Your task to perform on an android device: Open location settings Image 0: 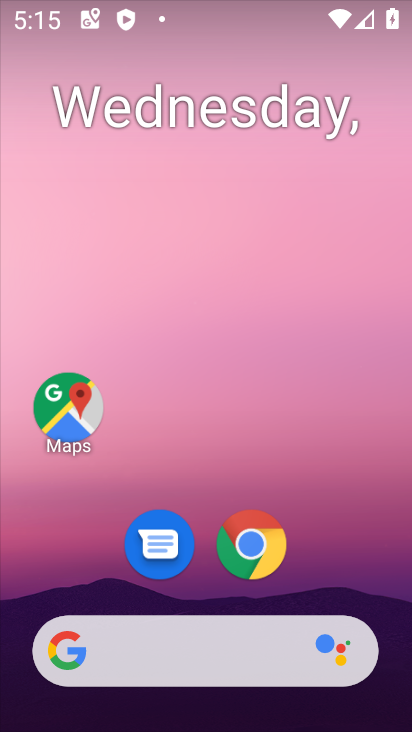
Step 0: drag from (389, 690) to (368, 262)
Your task to perform on an android device: Open location settings Image 1: 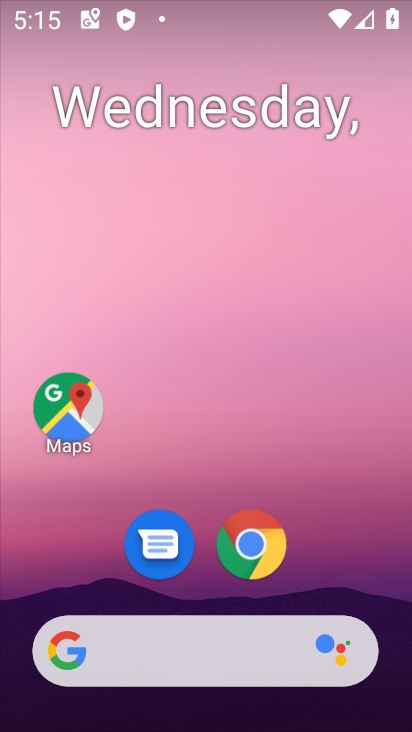
Step 1: drag from (392, 596) to (376, 113)
Your task to perform on an android device: Open location settings Image 2: 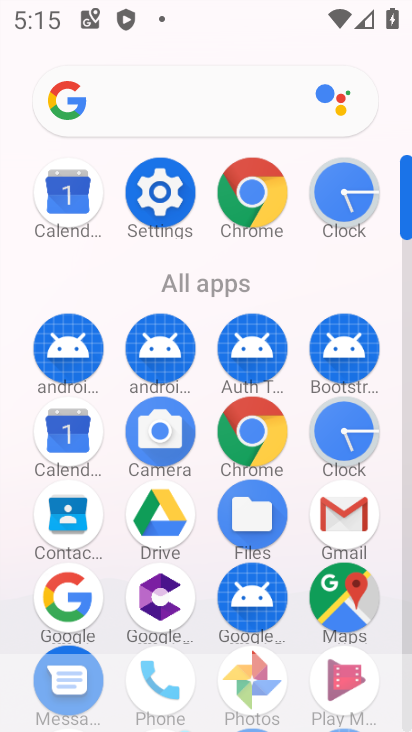
Step 2: click (161, 187)
Your task to perform on an android device: Open location settings Image 3: 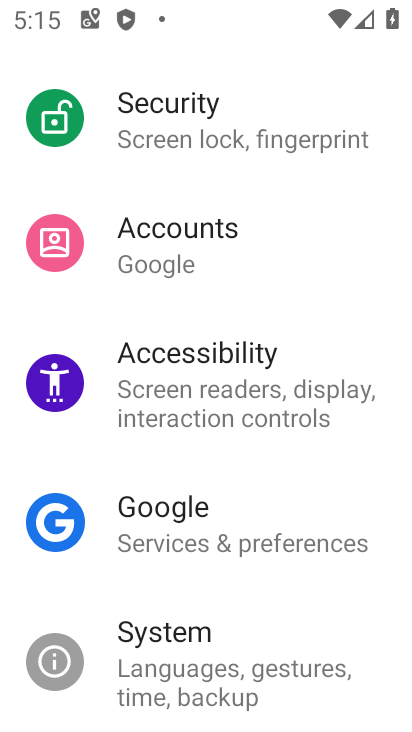
Step 3: drag from (243, 158) to (270, 515)
Your task to perform on an android device: Open location settings Image 4: 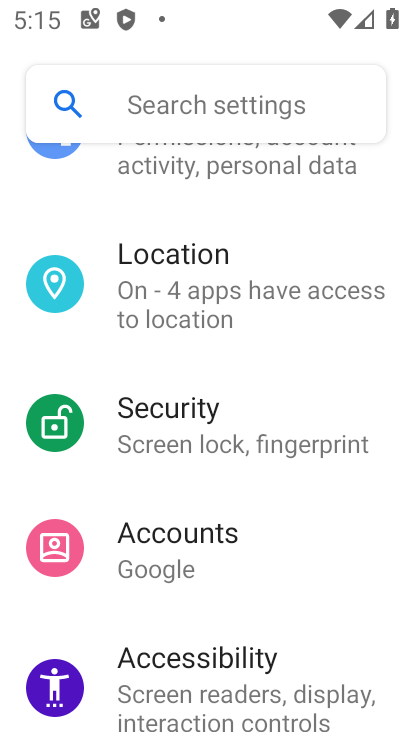
Step 4: click (176, 287)
Your task to perform on an android device: Open location settings Image 5: 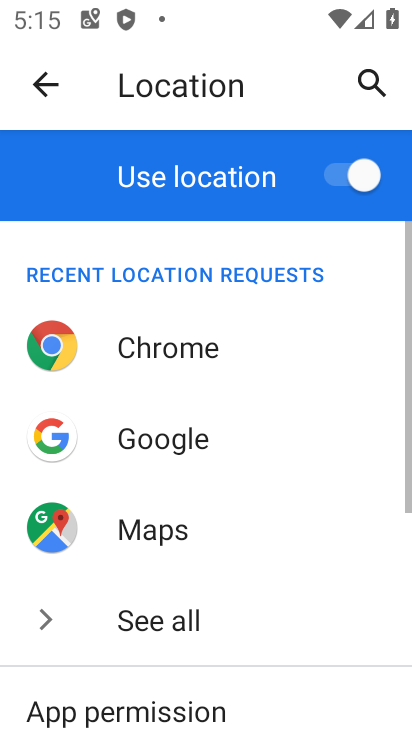
Step 5: drag from (317, 681) to (285, 243)
Your task to perform on an android device: Open location settings Image 6: 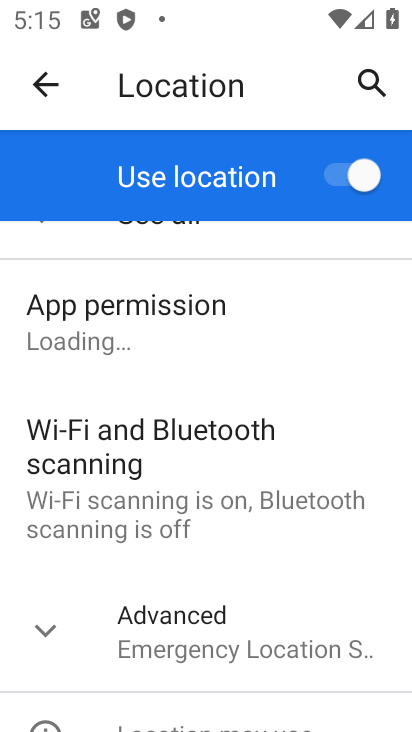
Step 6: click (59, 633)
Your task to perform on an android device: Open location settings Image 7: 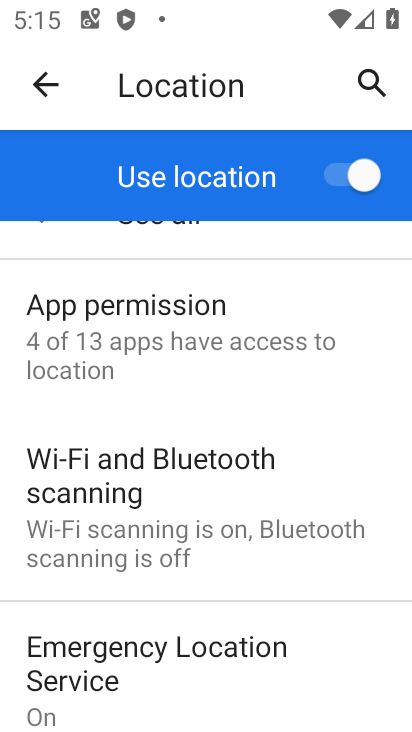
Step 7: task complete